Your task to perform on an android device: Go to display settings Image 0: 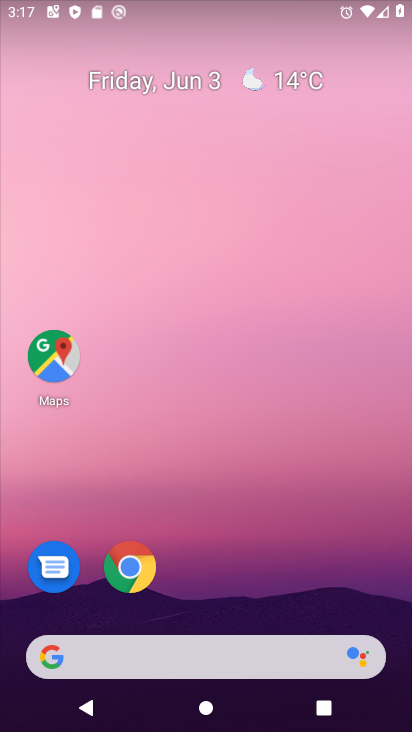
Step 0: drag from (263, 666) to (249, 153)
Your task to perform on an android device: Go to display settings Image 1: 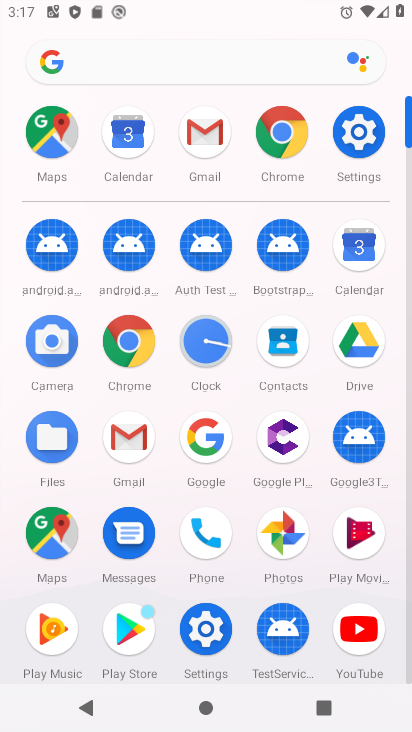
Step 1: click (351, 145)
Your task to perform on an android device: Go to display settings Image 2: 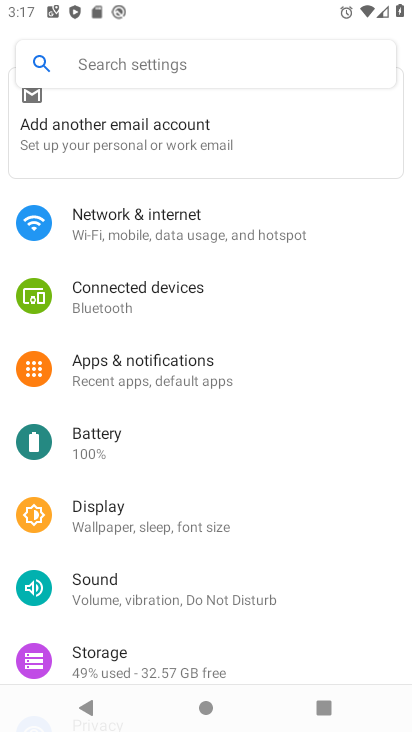
Step 2: click (131, 507)
Your task to perform on an android device: Go to display settings Image 3: 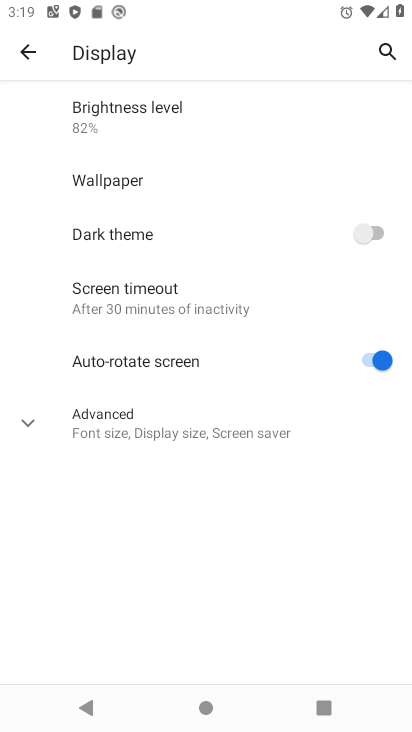
Step 3: task complete